Your task to perform on an android device: Open privacy settings Image 0: 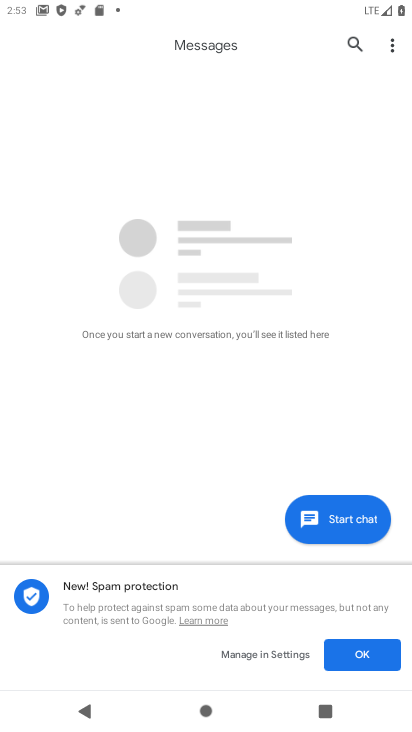
Step 0: press home button
Your task to perform on an android device: Open privacy settings Image 1: 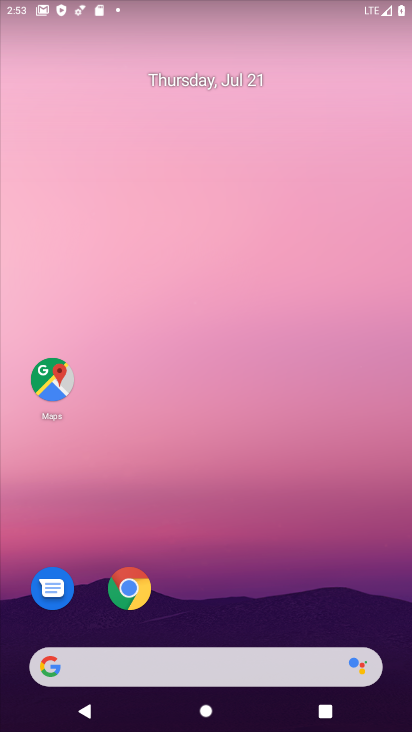
Step 1: drag from (195, 608) to (226, 218)
Your task to perform on an android device: Open privacy settings Image 2: 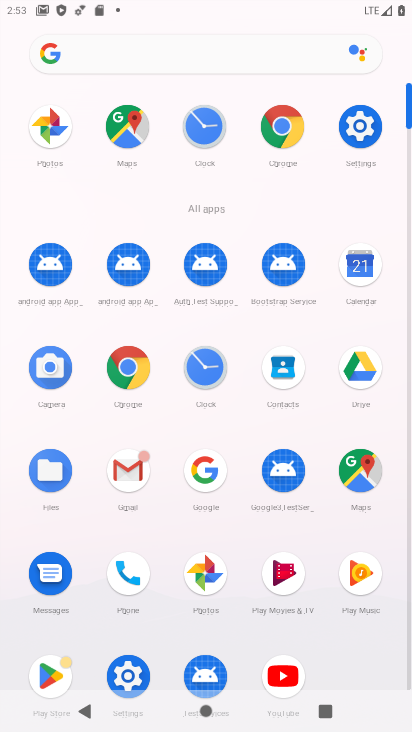
Step 2: click (350, 122)
Your task to perform on an android device: Open privacy settings Image 3: 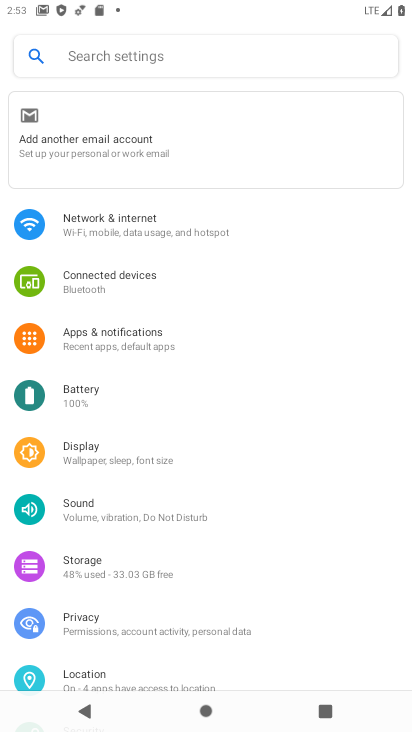
Step 3: click (89, 617)
Your task to perform on an android device: Open privacy settings Image 4: 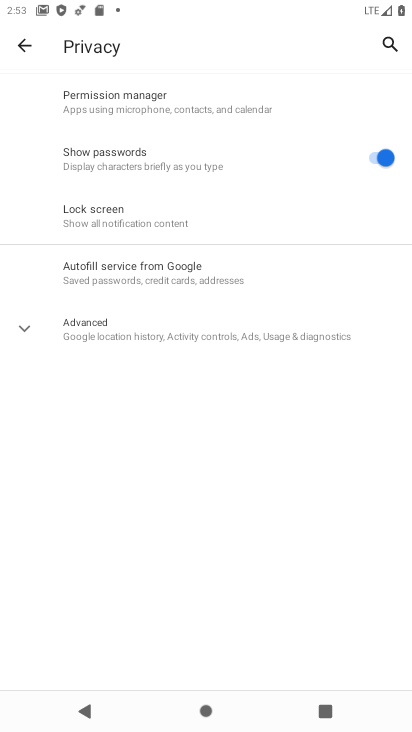
Step 4: task complete